Your task to perform on an android device: Go to CNN.com Image 0: 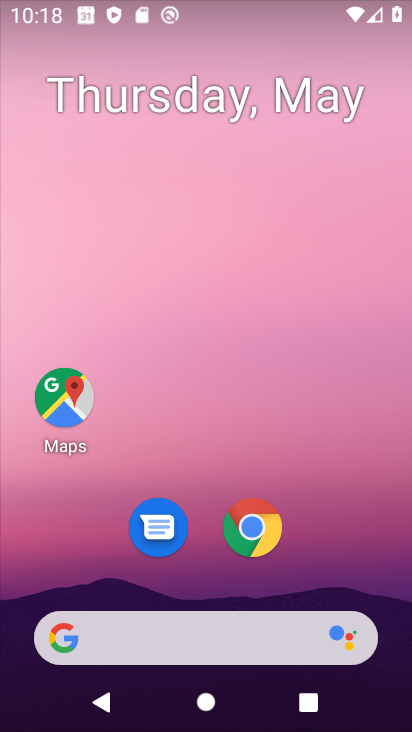
Step 0: click (253, 521)
Your task to perform on an android device: Go to CNN.com Image 1: 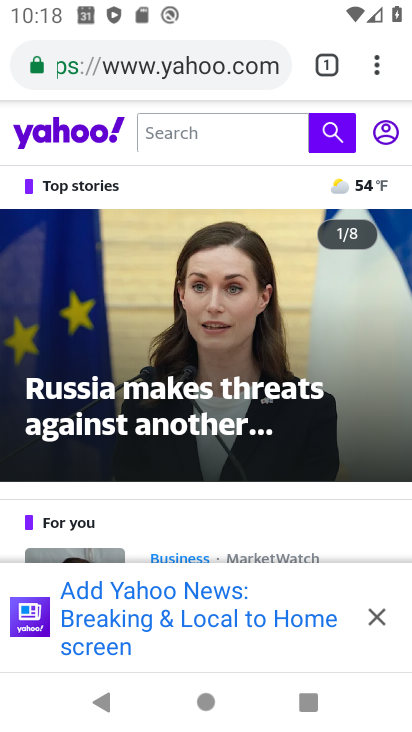
Step 1: click (374, 71)
Your task to perform on an android device: Go to CNN.com Image 2: 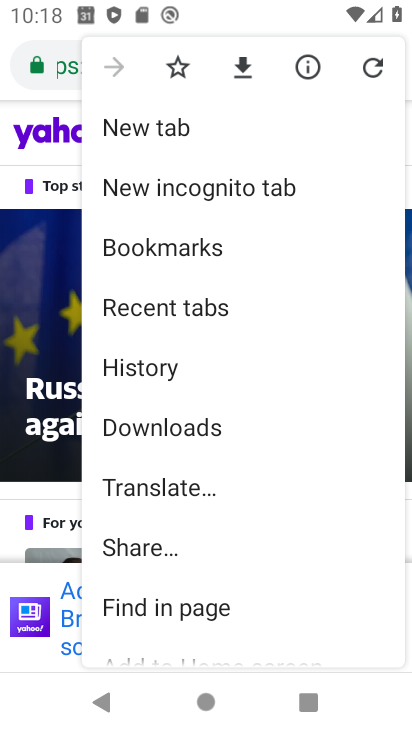
Step 2: drag from (145, 622) to (177, 218)
Your task to perform on an android device: Go to CNN.com Image 3: 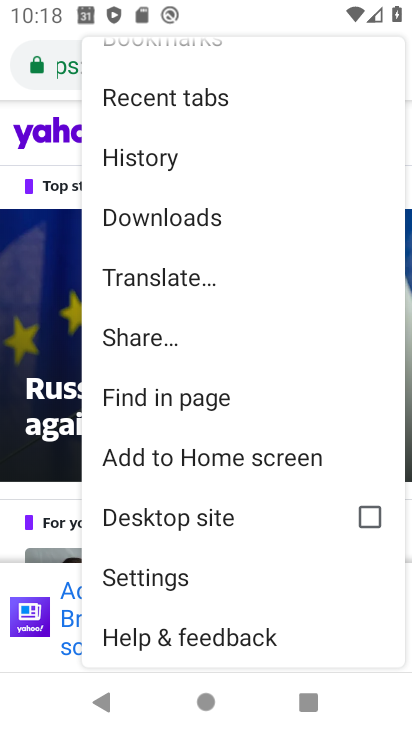
Step 3: click (158, 571)
Your task to perform on an android device: Go to CNN.com Image 4: 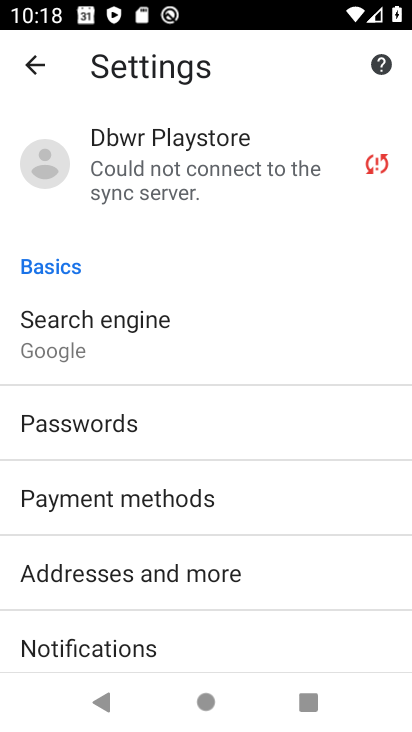
Step 4: press home button
Your task to perform on an android device: Go to CNN.com Image 5: 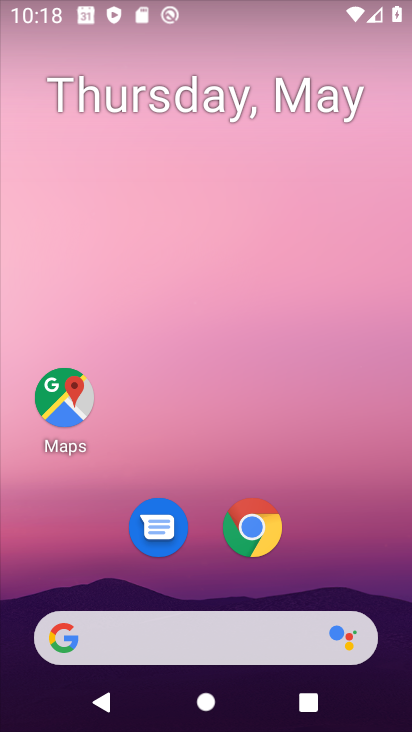
Step 5: click (258, 528)
Your task to perform on an android device: Go to CNN.com Image 6: 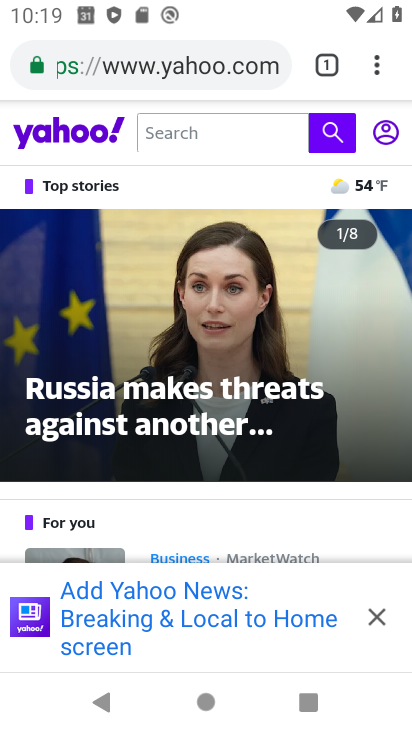
Step 6: click (258, 528)
Your task to perform on an android device: Go to CNN.com Image 7: 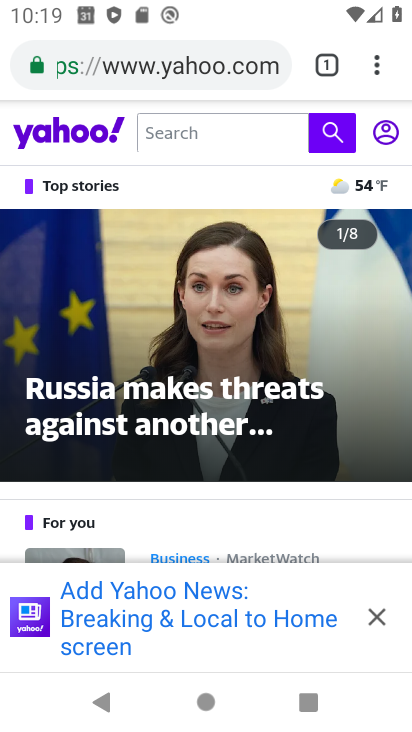
Step 7: click (376, 72)
Your task to perform on an android device: Go to CNN.com Image 8: 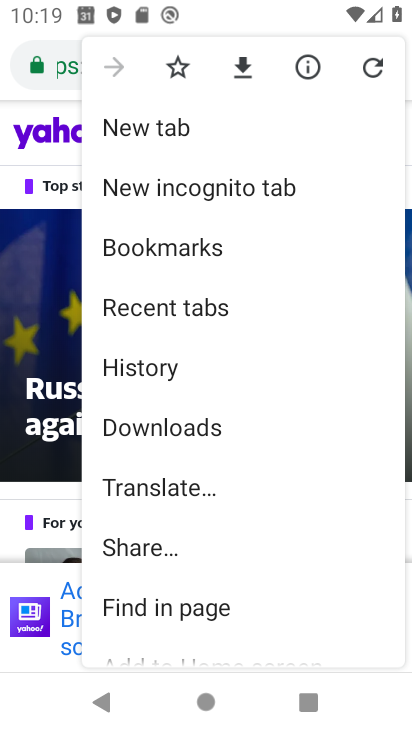
Step 8: click (148, 130)
Your task to perform on an android device: Go to CNN.com Image 9: 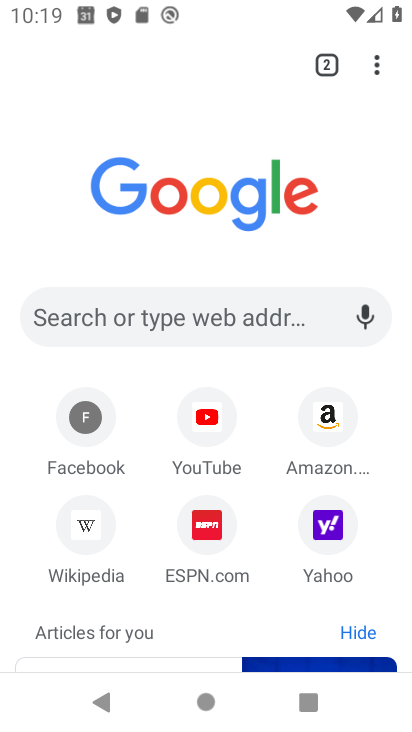
Step 9: click (174, 308)
Your task to perform on an android device: Go to CNN.com Image 10: 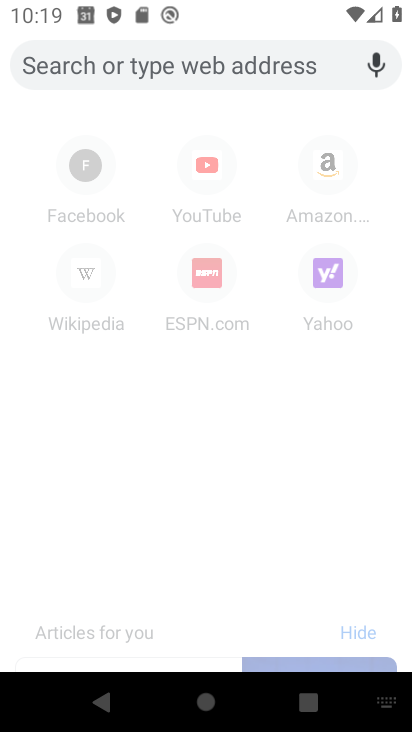
Step 10: type "CNN.com"
Your task to perform on an android device: Go to CNN.com Image 11: 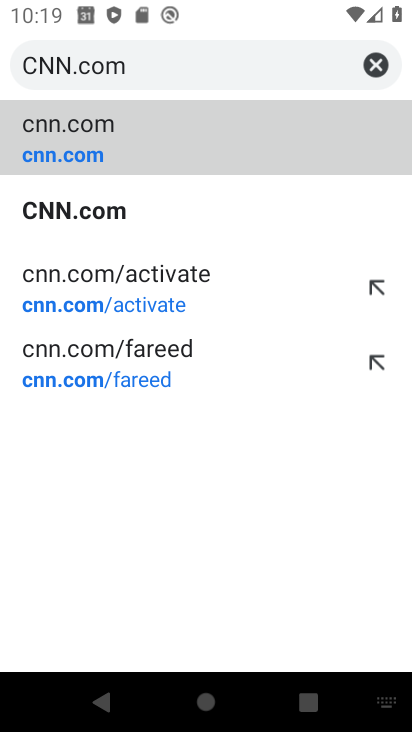
Step 11: click (86, 132)
Your task to perform on an android device: Go to CNN.com Image 12: 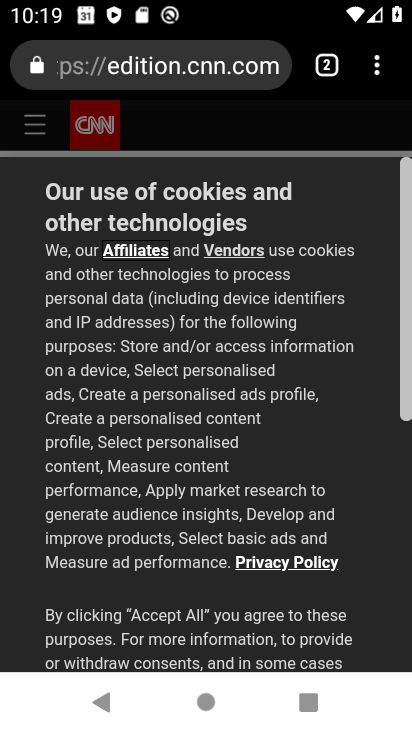
Step 12: task complete